Your task to perform on an android device: turn on data saver in the chrome app Image 0: 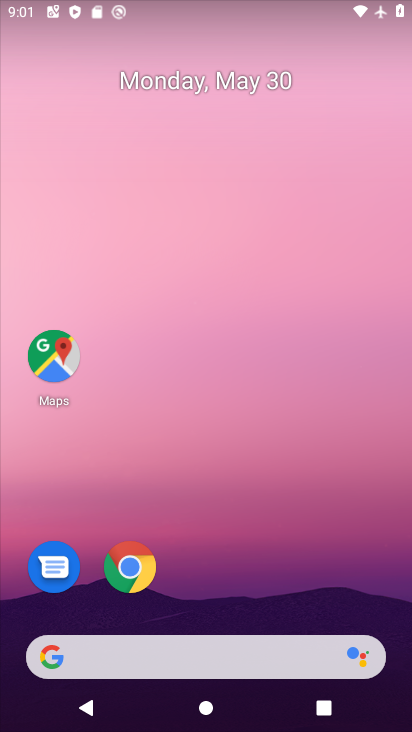
Step 0: drag from (236, 586) to (221, 73)
Your task to perform on an android device: turn on data saver in the chrome app Image 1: 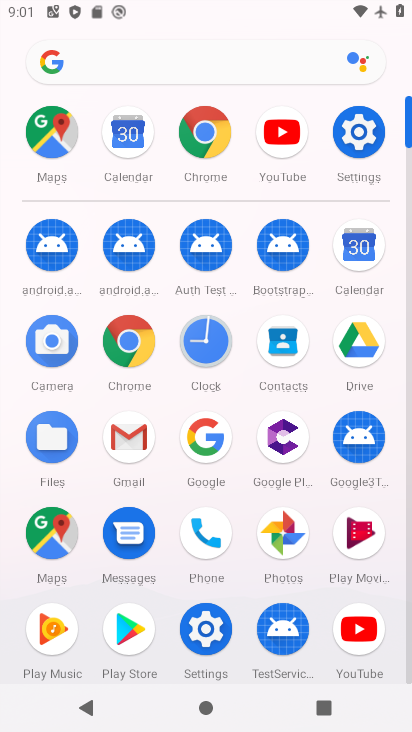
Step 1: click (195, 131)
Your task to perform on an android device: turn on data saver in the chrome app Image 2: 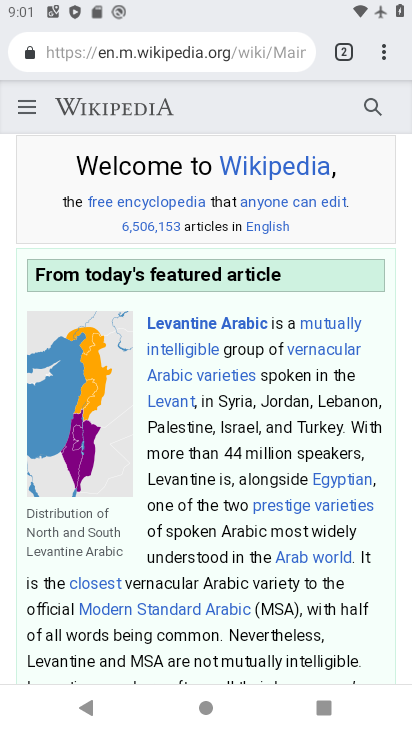
Step 2: click (389, 45)
Your task to perform on an android device: turn on data saver in the chrome app Image 3: 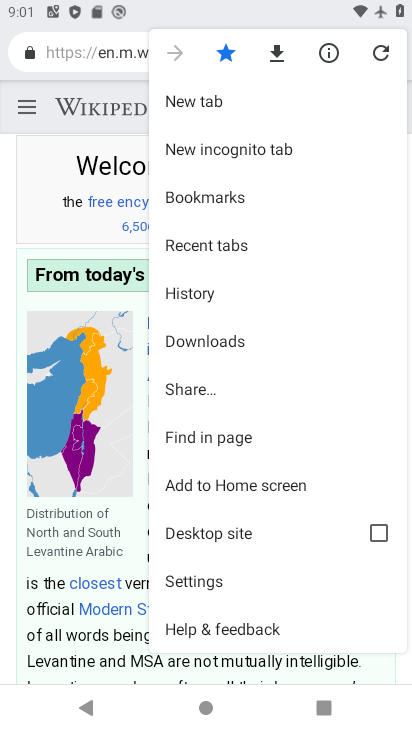
Step 3: click (268, 579)
Your task to perform on an android device: turn on data saver in the chrome app Image 4: 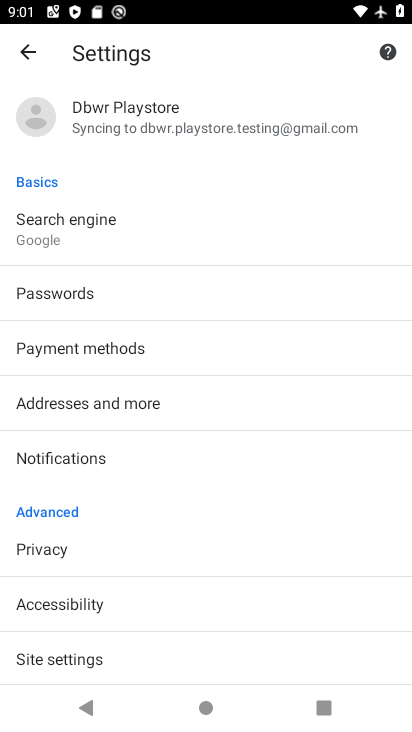
Step 4: drag from (226, 651) to (197, 305)
Your task to perform on an android device: turn on data saver in the chrome app Image 5: 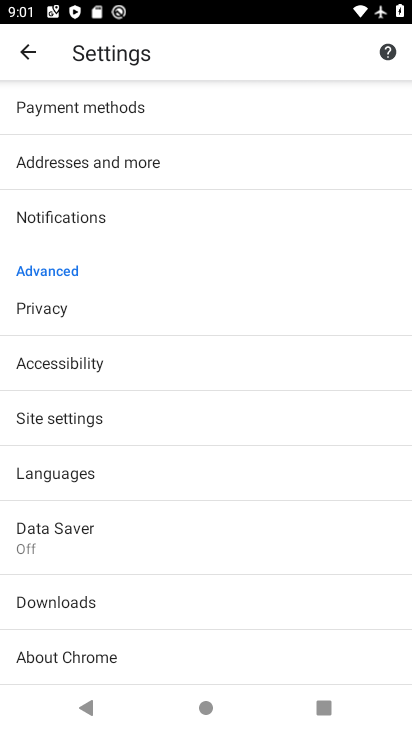
Step 5: click (164, 532)
Your task to perform on an android device: turn on data saver in the chrome app Image 6: 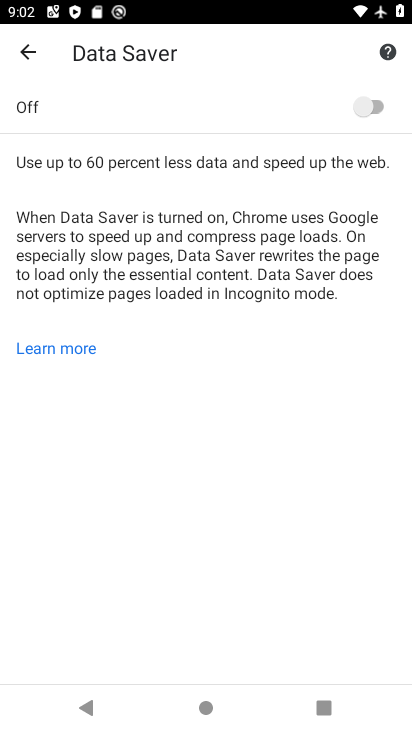
Step 6: click (366, 99)
Your task to perform on an android device: turn on data saver in the chrome app Image 7: 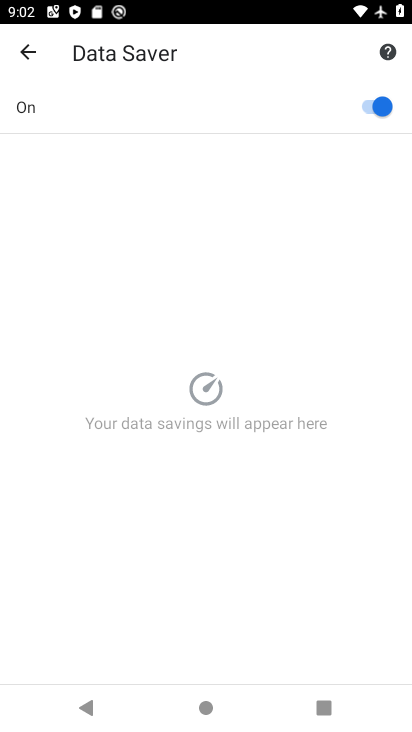
Step 7: task complete